Your task to perform on an android device: change the clock style Image 0: 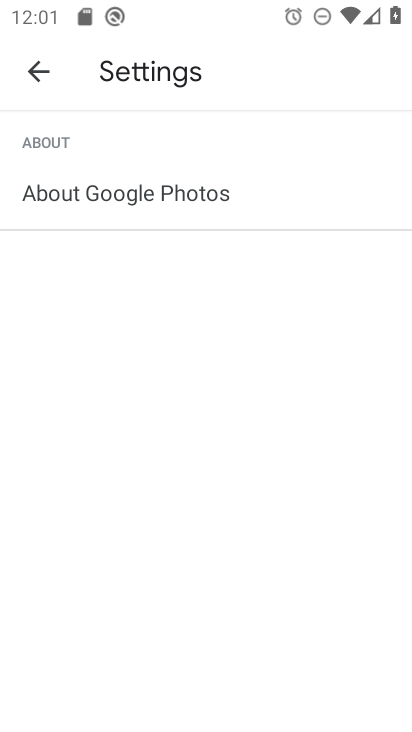
Step 0: press home button
Your task to perform on an android device: change the clock style Image 1: 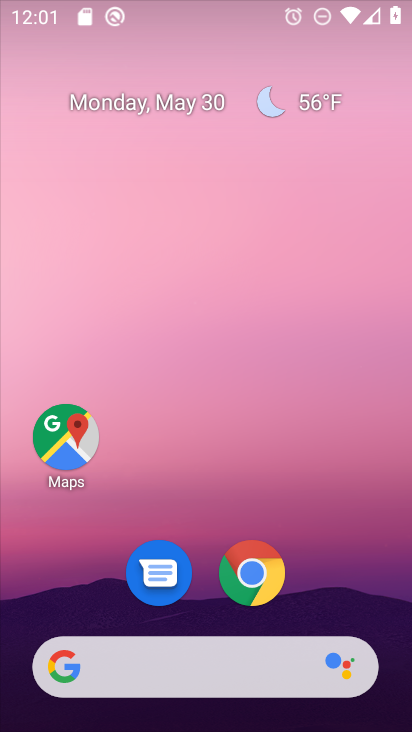
Step 1: drag from (284, 704) to (371, 32)
Your task to perform on an android device: change the clock style Image 2: 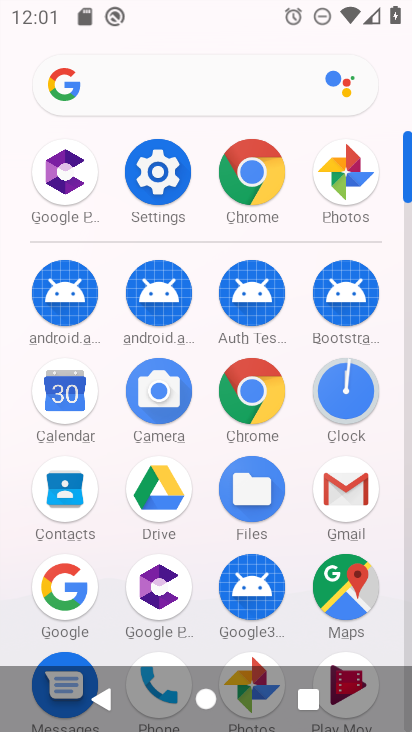
Step 2: click (349, 407)
Your task to perform on an android device: change the clock style Image 3: 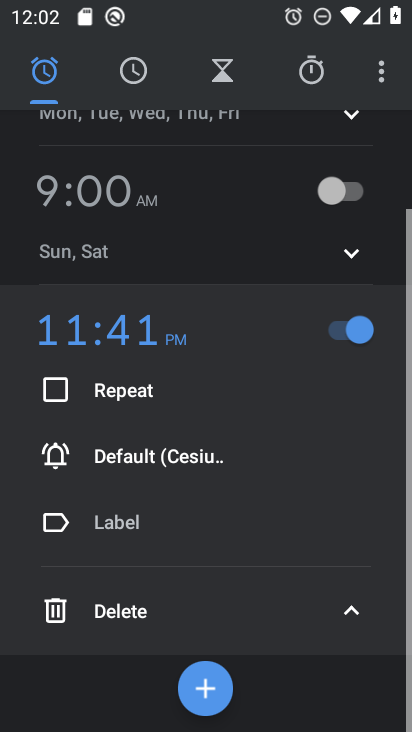
Step 3: drag from (378, 63) to (291, 139)
Your task to perform on an android device: change the clock style Image 4: 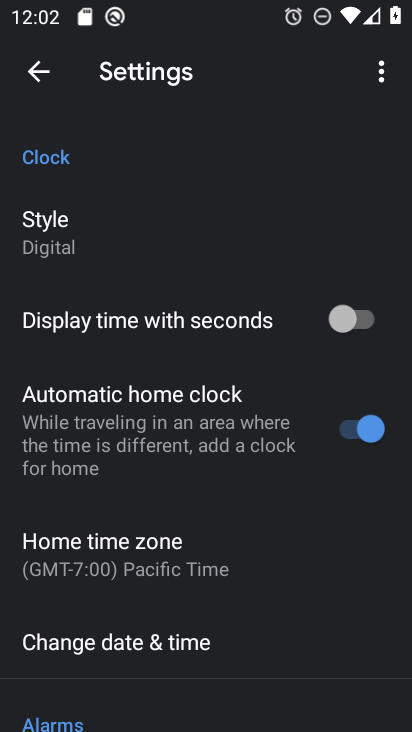
Step 4: click (66, 211)
Your task to perform on an android device: change the clock style Image 5: 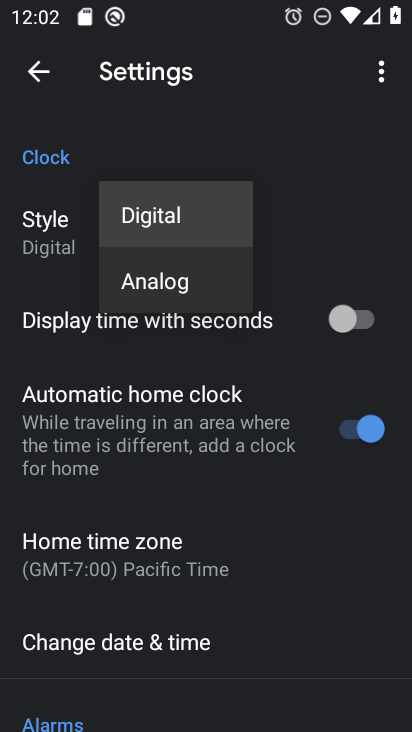
Step 5: click (187, 294)
Your task to perform on an android device: change the clock style Image 6: 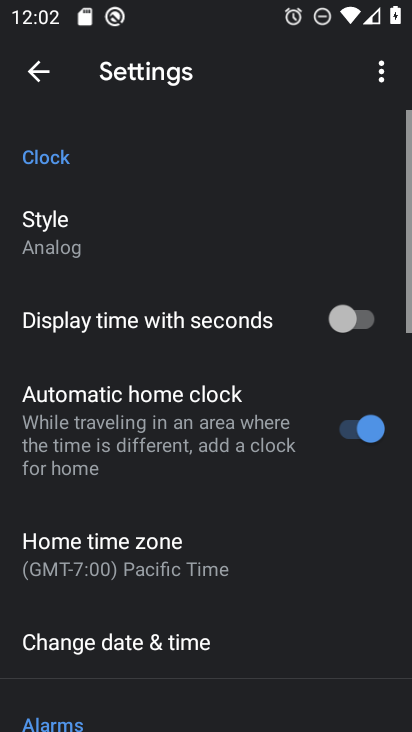
Step 6: task complete